Your task to perform on an android device: Search for vegetarian restaurants on Maps Image 0: 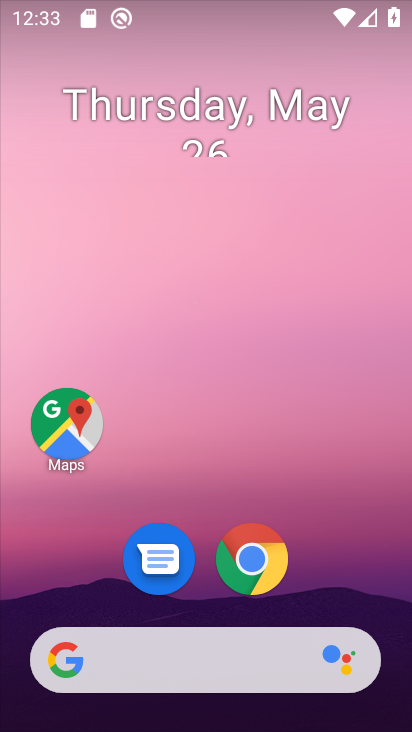
Step 0: press home button
Your task to perform on an android device: Search for vegetarian restaurants on Maps Image 1: 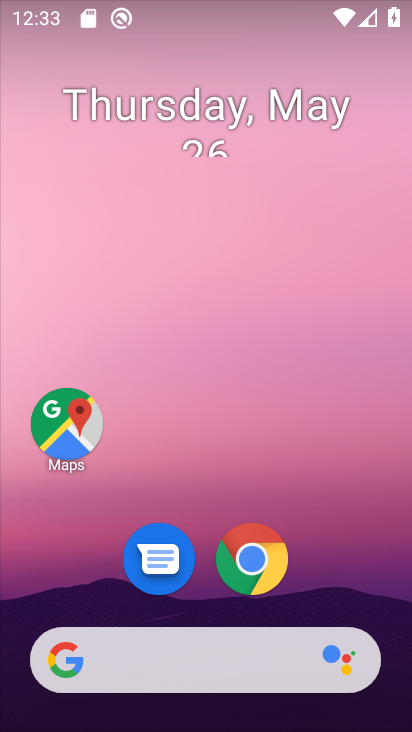
Step 1: click (64, 421)
Your task to perform on an android device: Search for vegetarian restaurants on Maps Image 2: 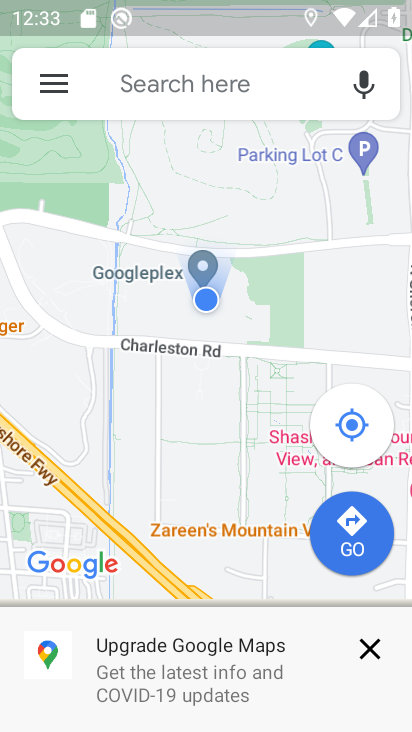
Step 2: click (217, 90)
Your task to perform on an android device: Search for vegetarian restaurants on Maps Image 3: 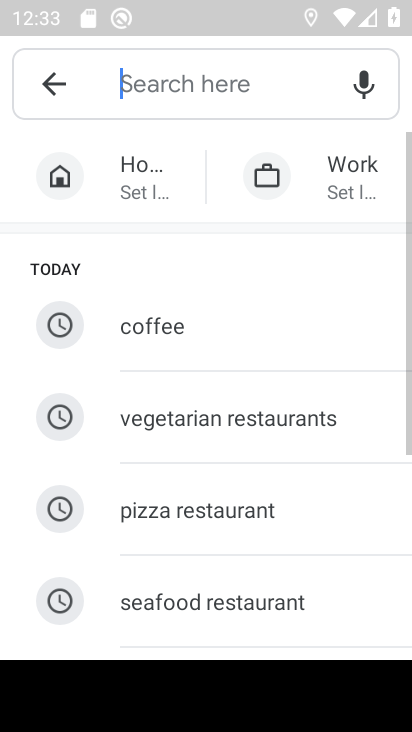
Step 3: click (242, 427)
Your task to perform on an android device: Search for vegetarian restaurants on Maps Image 4: 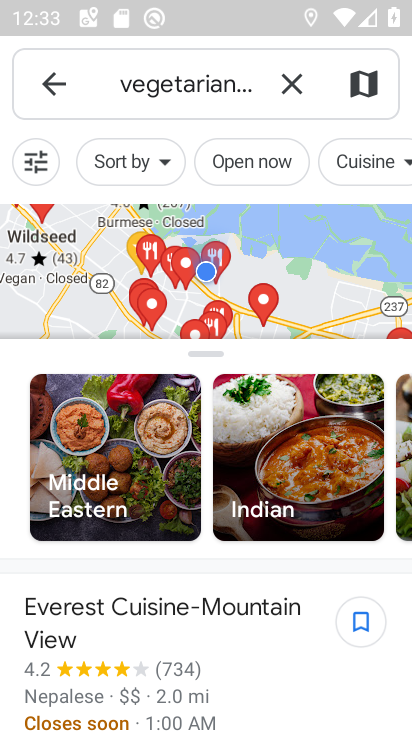
Step 4: task complete